Your task to perform on an android device: Open ESPN.com Image 0: 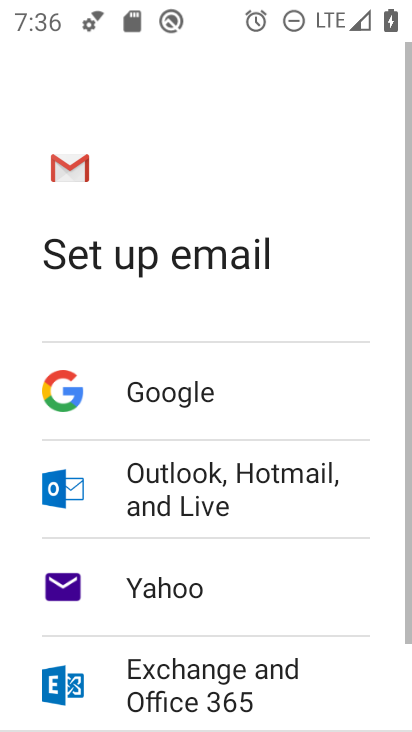
Step 0: press home button
Your task to perform on an android device: Open ESPN.com Image 1: 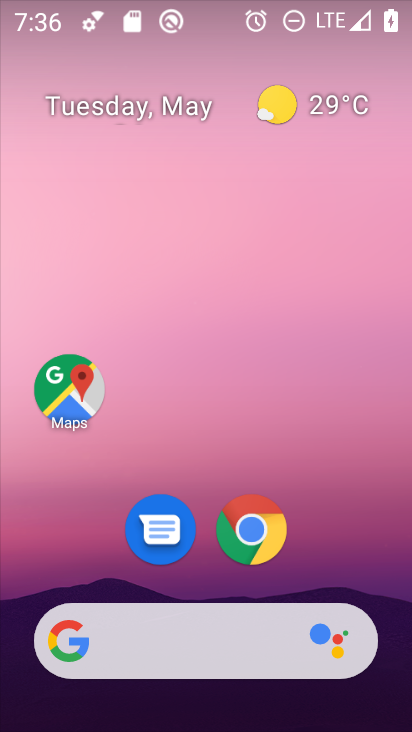
Step 1: drag from (388, 632) to (323, 42)
Your task to perform on an android device: Open ESPN.com Image 2: 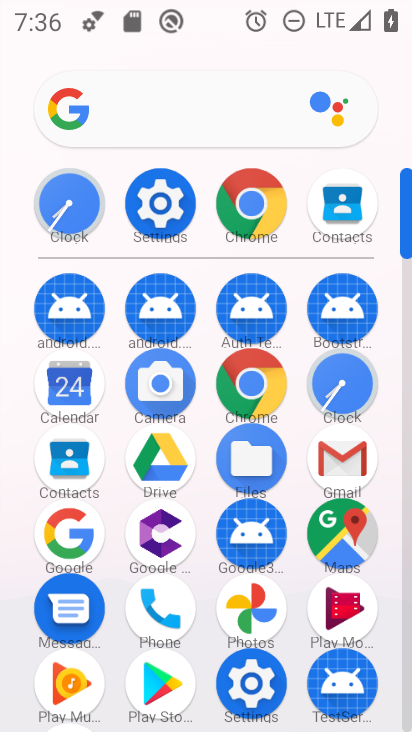
Step 2: click (82, 533)
Your task to perform on an android device: Open ESPN.com Image 3: 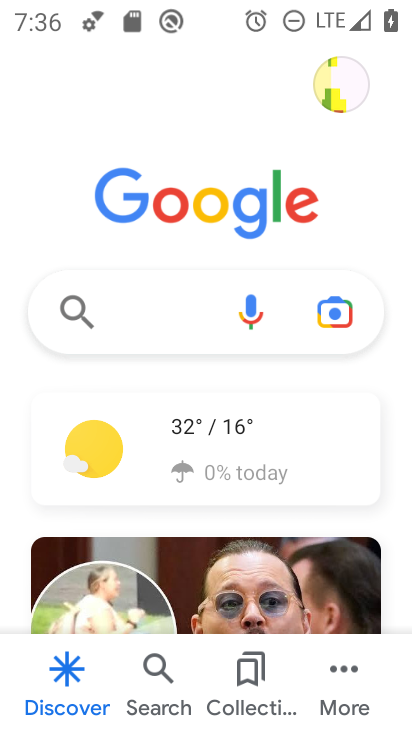
Step 3: click (139, 319)
Your task to perform on an android device: Open ESPN.com Image 4: 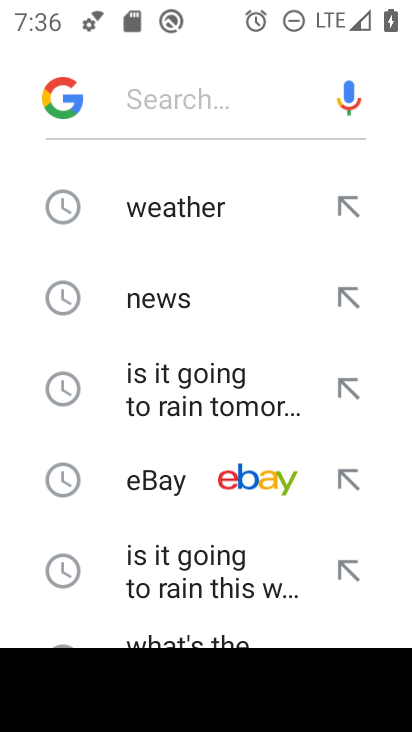
Step 4: drag from (195, 551) to (186, 154)
Your task to perform on an android device: Open ESPN.com Image 5: 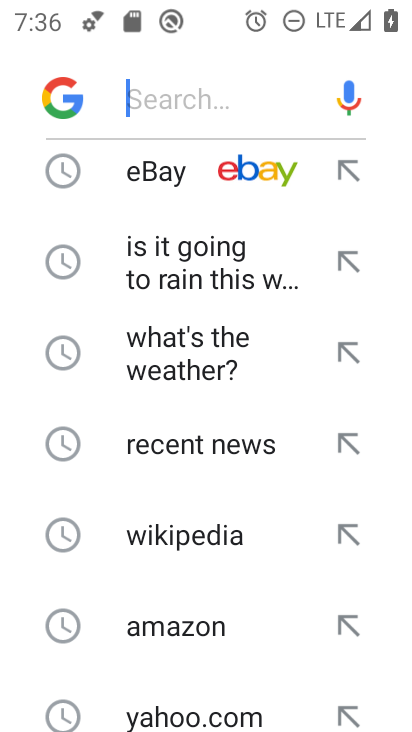
Step 5: drag from (177, 675) to (206, 243)
Your task to perform on an android device: Open ESPN.com Image 6: 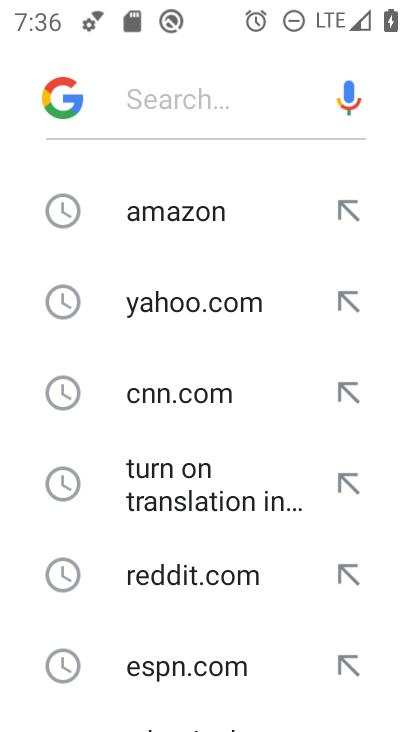
Step 6: click (208, 665)
Your task to perform on an android device: Open ESPN.com Image 7: 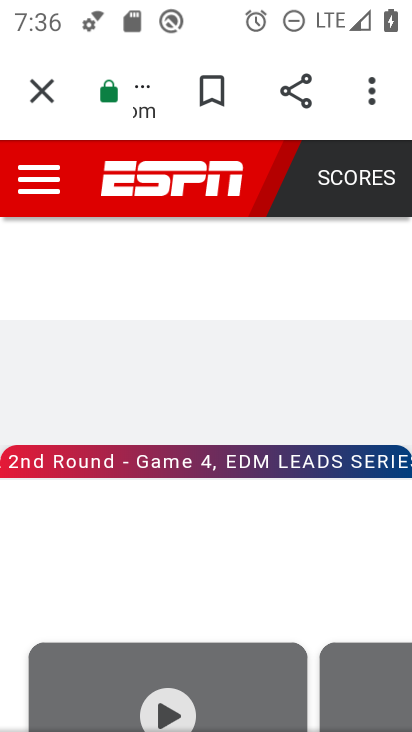
Step 7: task complete